Your task to perform on an android device: change alarm snooze length Image 0: 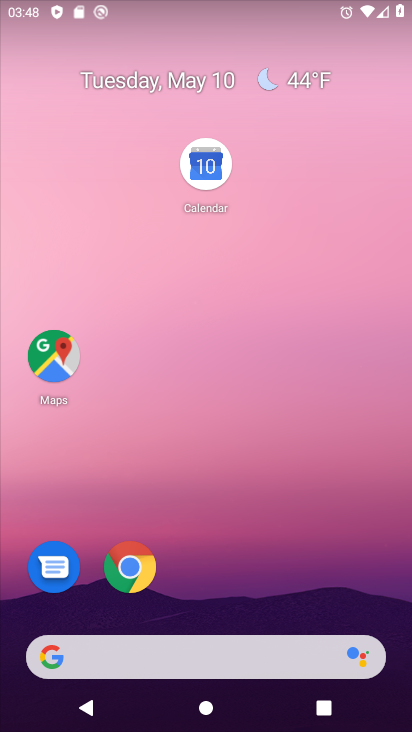
Step 0: drag from (274, 546) to (321, 32)
Your task to perform on an android device: change alarm snooze length Image 1: 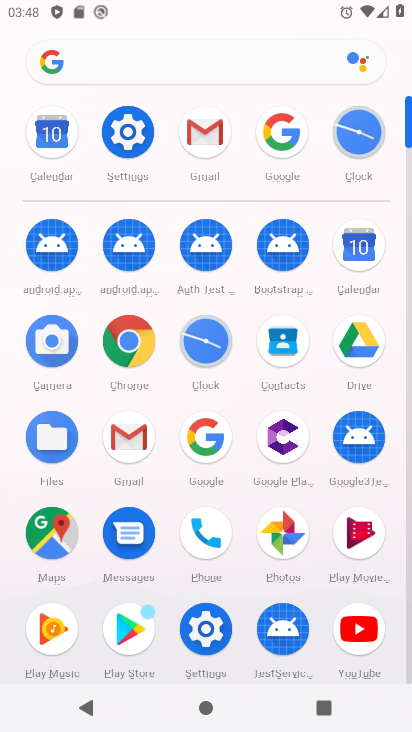
Step 1: click (204, 342)
Your task to perform on an android device: change alarm snooze length Image 2: 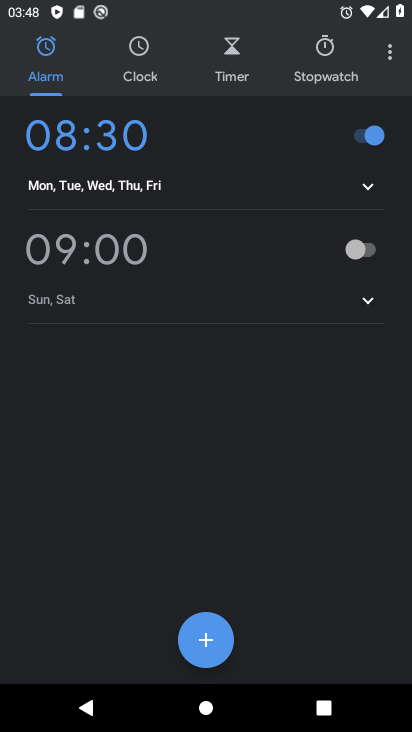
Step 2: click (378, 51)
Your task to perform on an android device: change alarm snooze length Image 3: 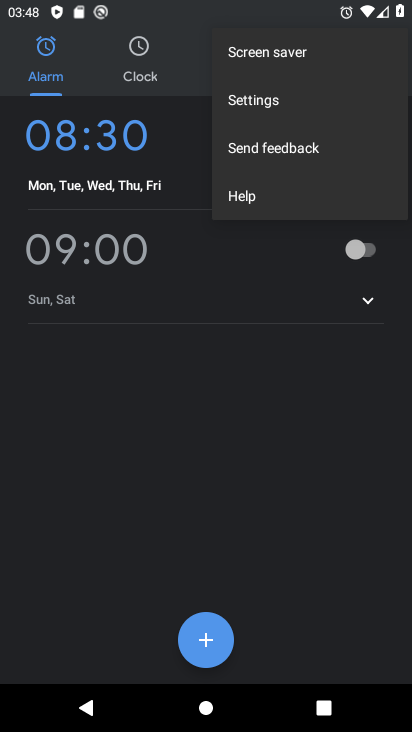
Step 3: click (286, 97)
Your task to perform on an android device: change alarm snooze length Image 4: 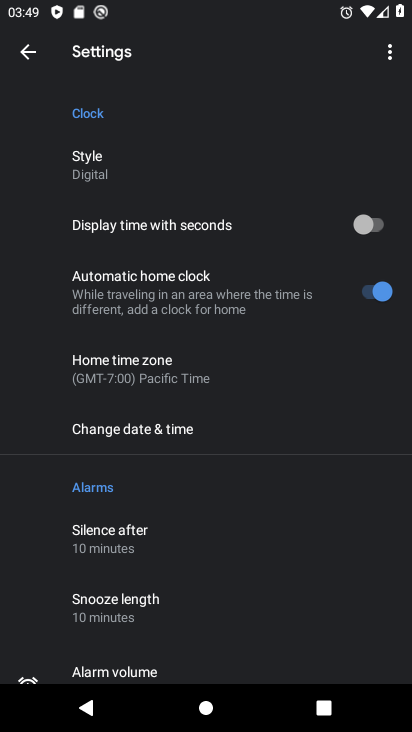
Step 4: click (152, 604)
Your task to perform on an android device: change alarm snooze length Image 5: 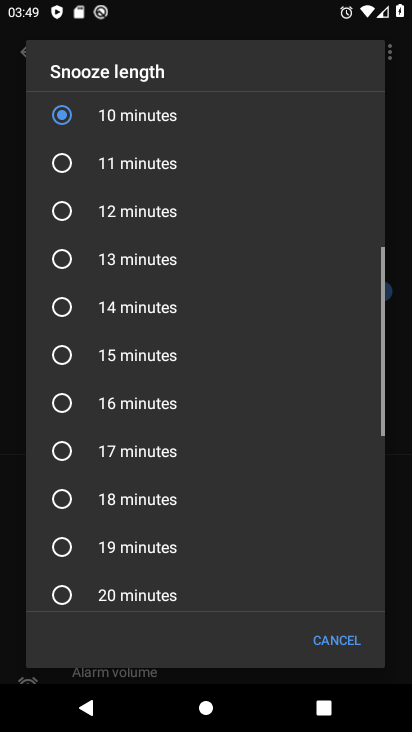
Step 5: click (72, 356)
Your task to perform on an android device: change alarm snooze length Image 6: 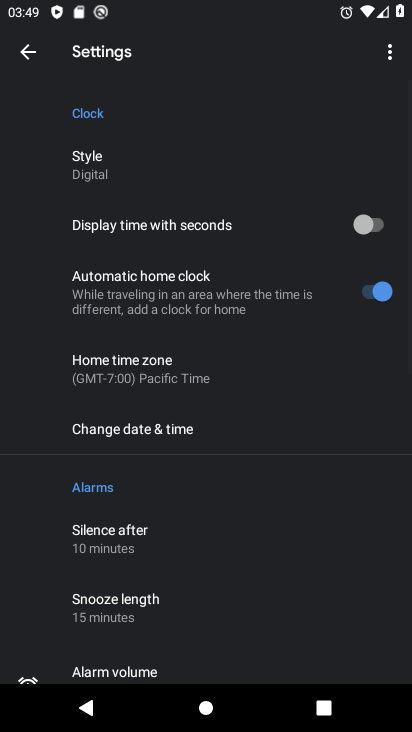
Step 6: task complete